Your task to perform on an android device: Open Reddit.com Image 0: 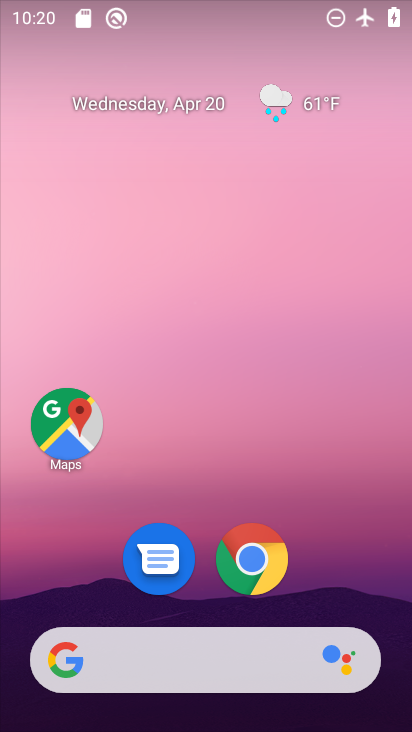
Step 0: click (249, 557)
Your task to perform on an android device: Open Reddit.com Image 1: 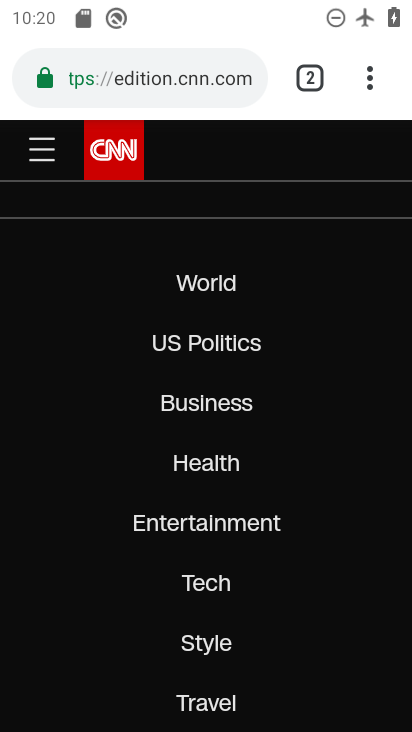
Step 1: click (138, 73)
Your task to perform on an android device: Open Reddit.com Image 2: 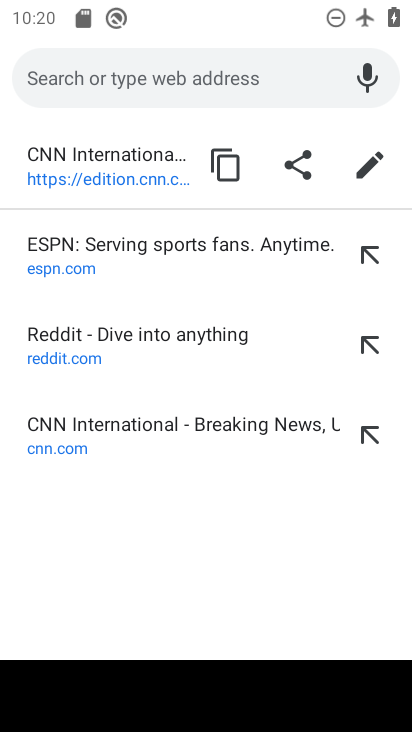
Step 2: type "reddit.com"
Your task to perform on an android device: Open Reddit.com Image 3: 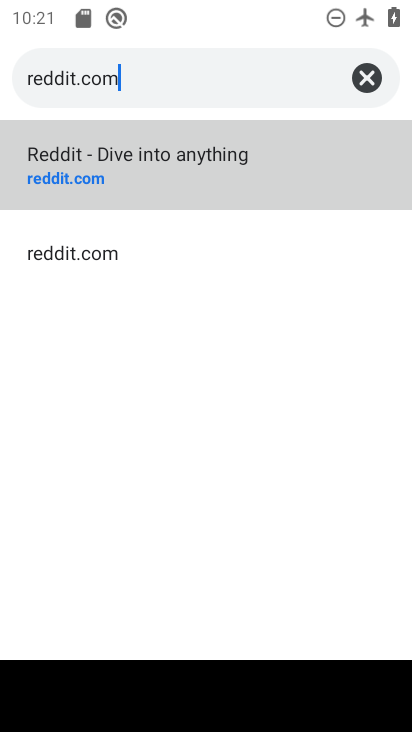
Step 3: click (117, 157)
Your task to perform on an android device: Open Reddit.com Image 4: 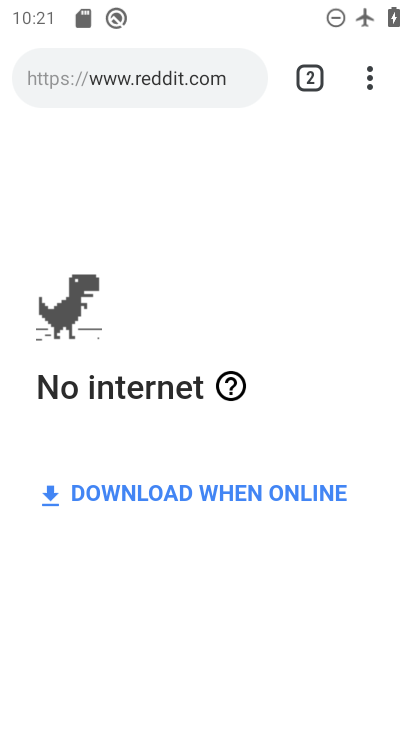
Step 4: task complete